Your task to perform on an android device: Open Google Image 0: 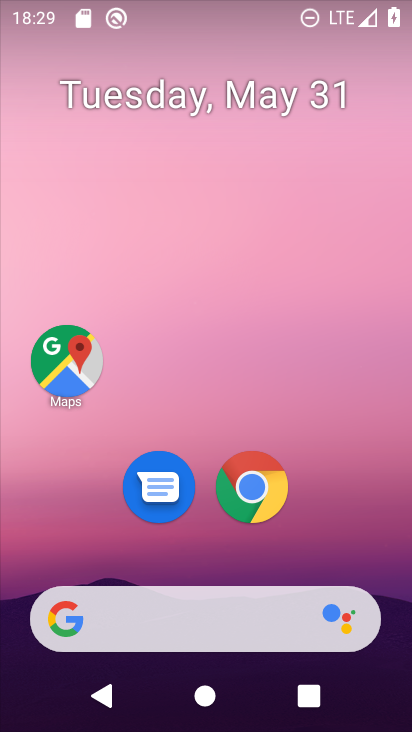
Step 0: click (77, 607)
Your task to perform on an android device: Open Google Image 1: 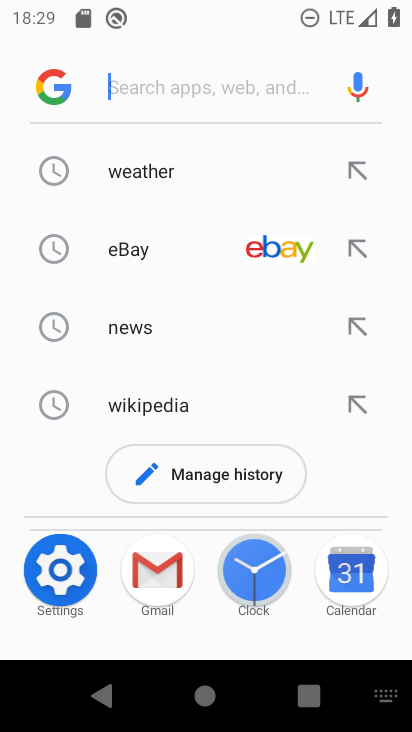
Step 1: click (54, 83)
Your task to perform on an android device: Open Google Image 2: 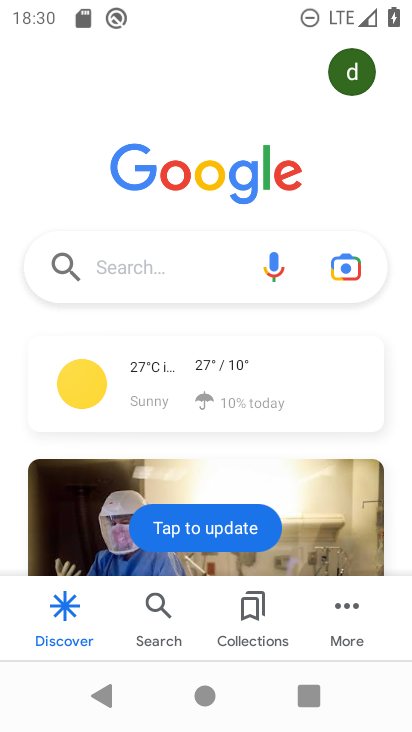
Step 2: task complete